Your task to perform on an android device: toggle notifications settings in the gmail app Image 0: 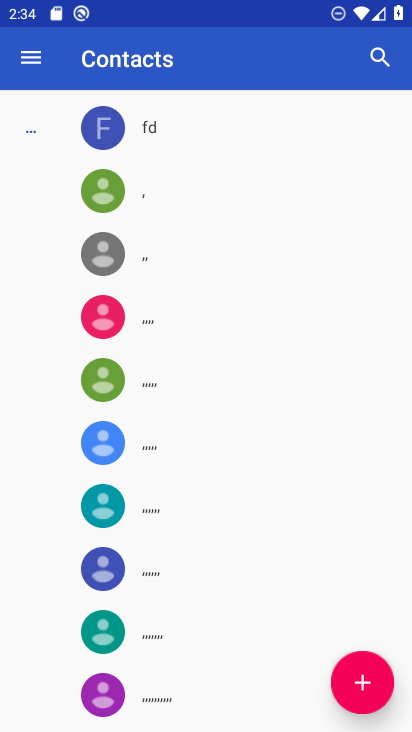
Step 0: press home button
Your task to perform on an android device: toggle notifications settings in the gmail app Image 1: 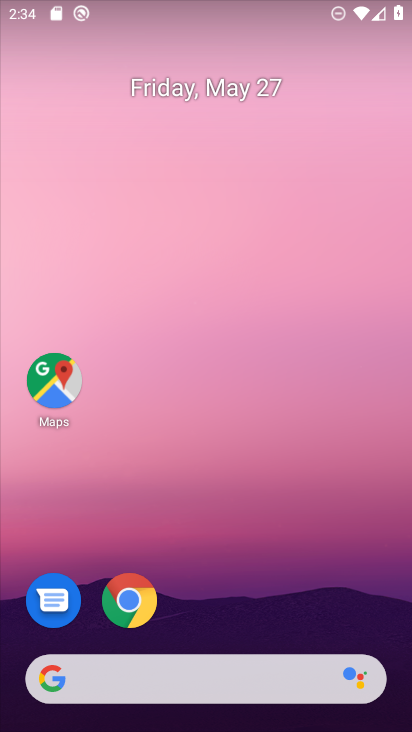
Step 1: drag from (220, 714) to (221, 137)
Your task to perform on an android device: toggle notifications settings in the gmail app Image 2: 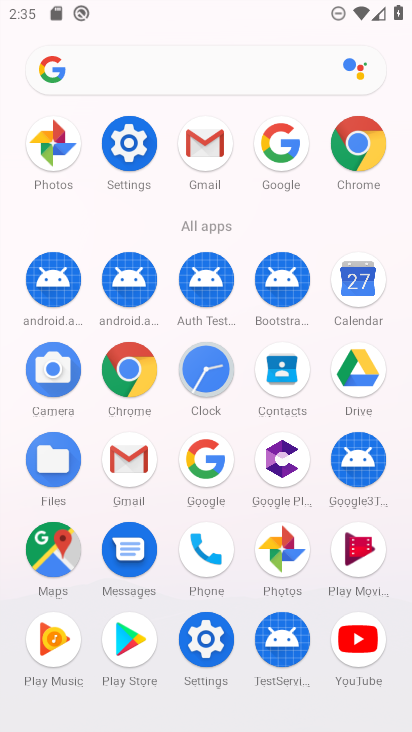
Step 2: click (129, 457)
Your task to perform on an android device: toggle notifications settings in the gmail app Image 3: 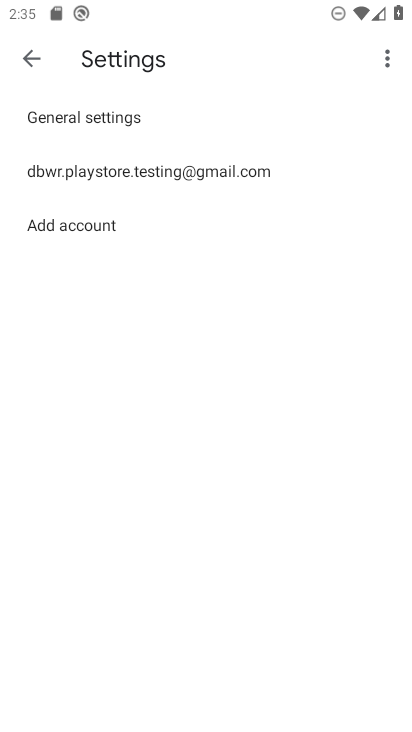
Step 3: click (161, 171)
Your task to perform on an android device: toggle notifications settings in the gmail app Image 4: 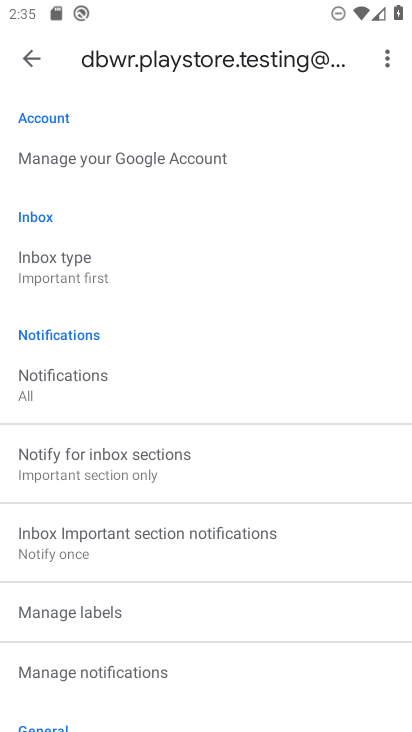
Step 4: click (64, 374)
Your task to perform on an android device: toggle notifications settings in the gmail app Image 5: 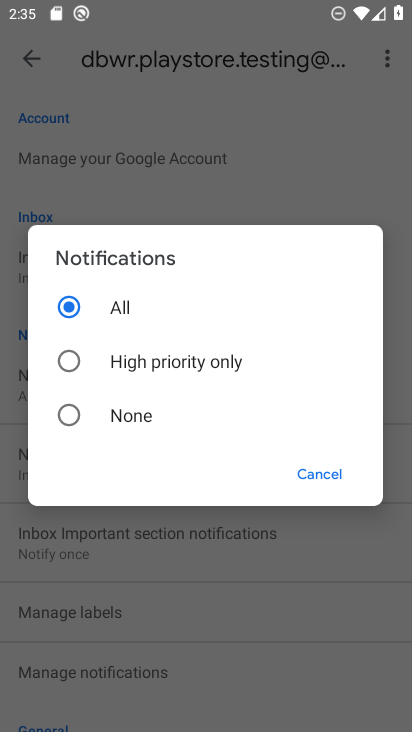
Step 5: click (72, 409)
Your task to perform on an android device: toggle notifications settings in the gmail app Image 6: 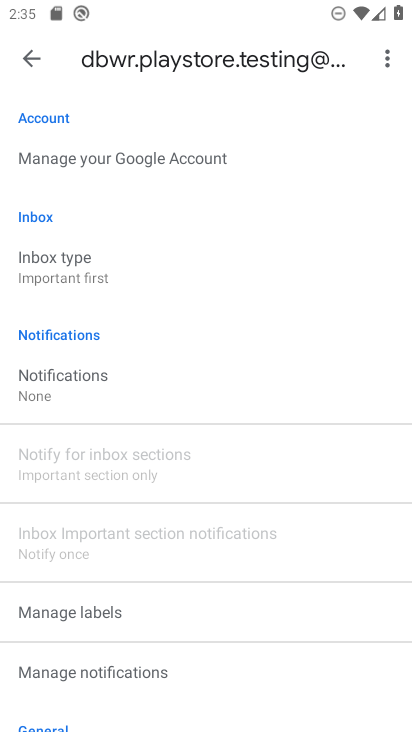
Step 6: task complete